Your task to perform on an android device: Open a new tab in Chrome Image 0: 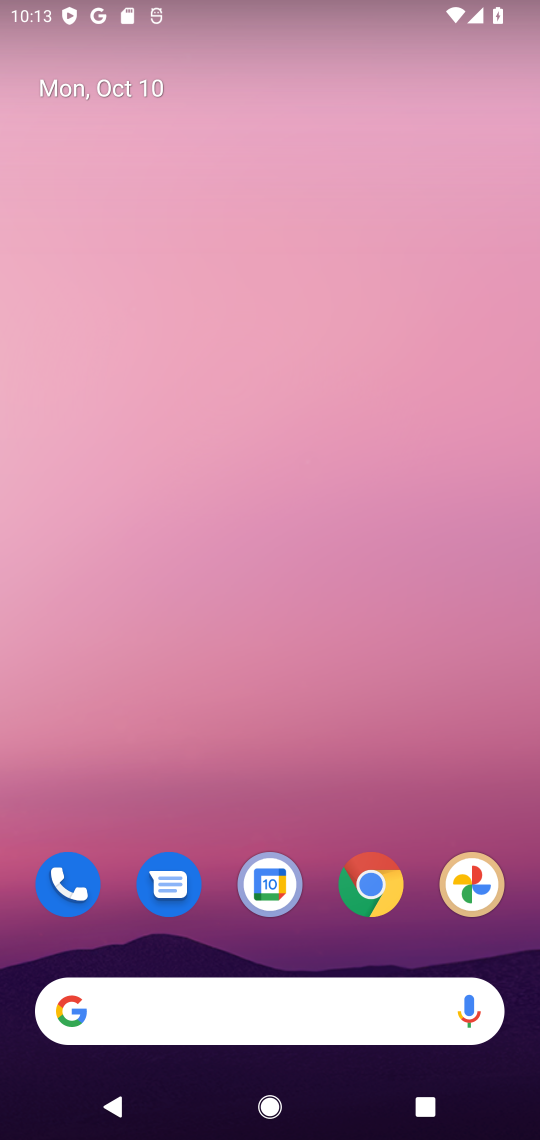
Step 0: click (375, 886)
Your task to perform on an android device: Open a new tab in Chrome Image 1: 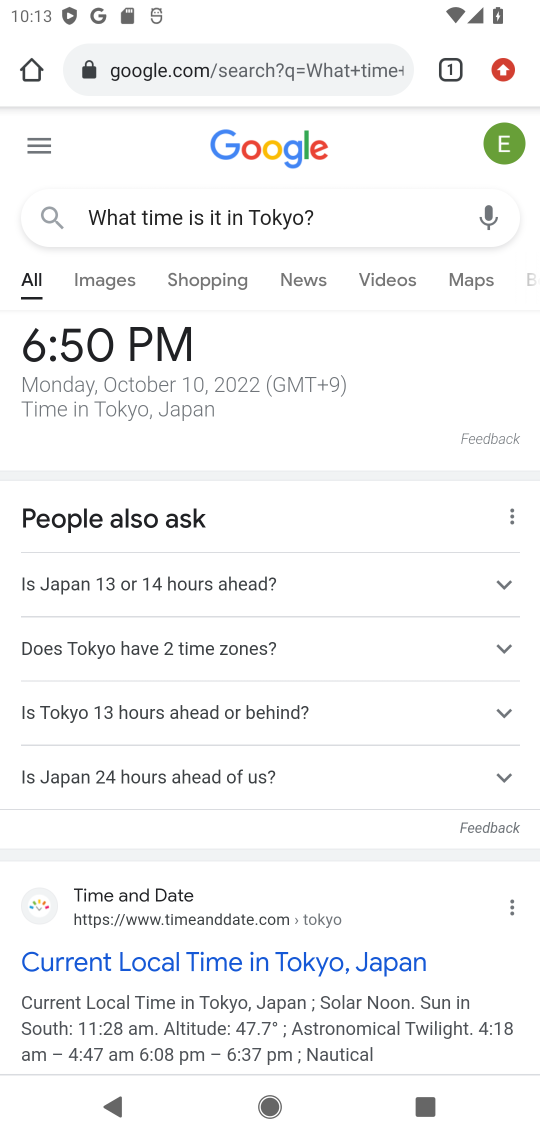
Step 1: task complete